Your task to perform on an android device: Open settings Image 0: 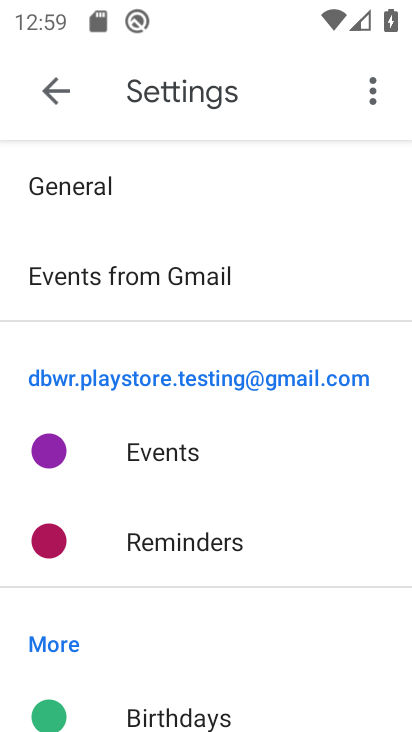
Step 0: press home button
Your task to perform on an android device: Open settings Image 1: 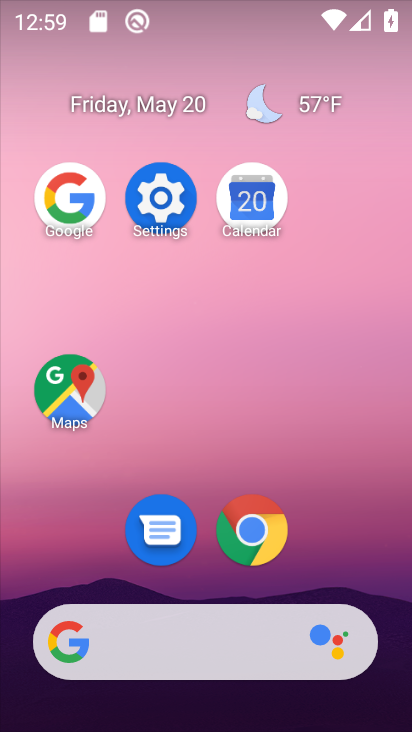
Step 1: click (182, 188)
Your task to perform on an android device: Open settings Image 2: 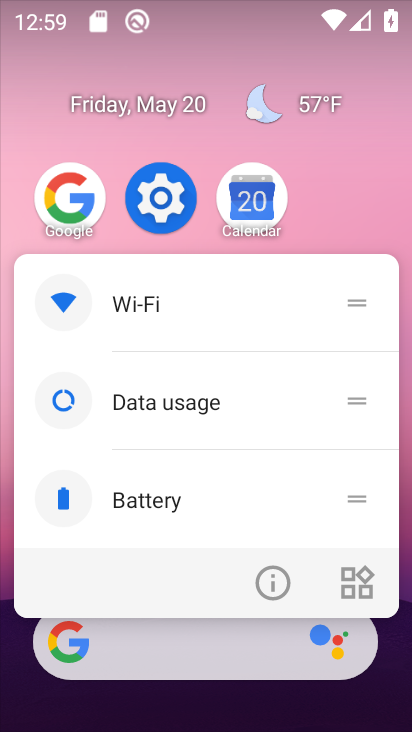
Step 2: click (163, 190)
Your task to perform on an android device: Open settings Image 3: 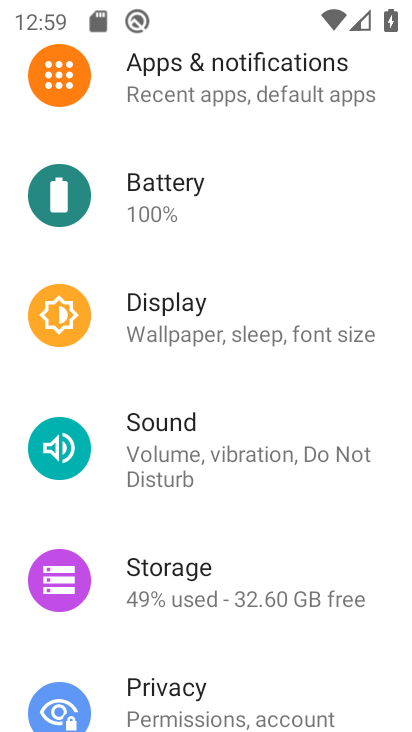
Step 3: task complete